Your task to perform on an android device: Open the Play Movies app and select the watchlist tab. Image 0: 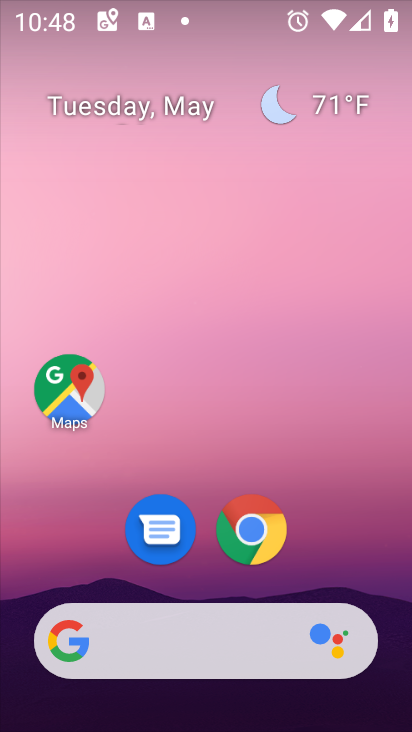
Step 0: drag from (249, 715) to (287, 142)
Your task to perform on an android device: Open the Play Movies app and select the watchlist tab. Image 1: 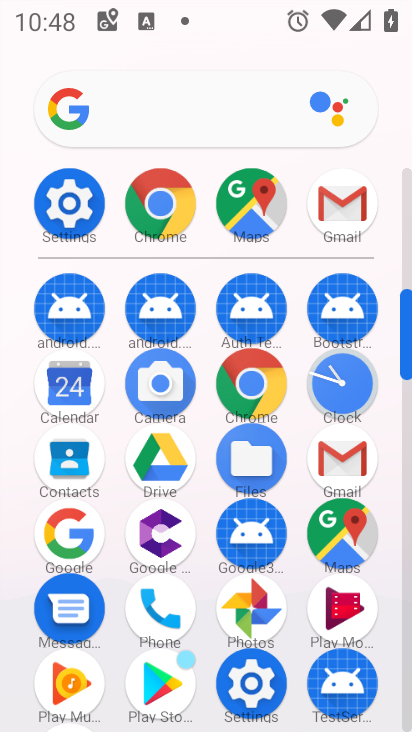
Step 1: click (337, 613)
Your task to perform on an android device: Open the Play Movies app and select the watchlist tab. Image 2: 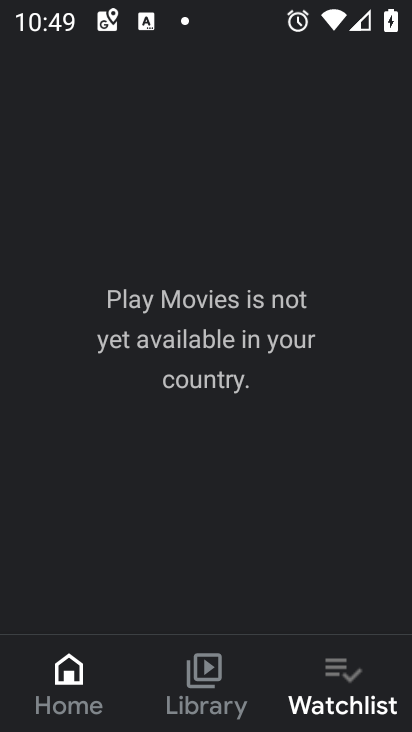
Step 2: task complete